Your task to perform on an android device: see tabs open on other devices in the chrome app Image 0: 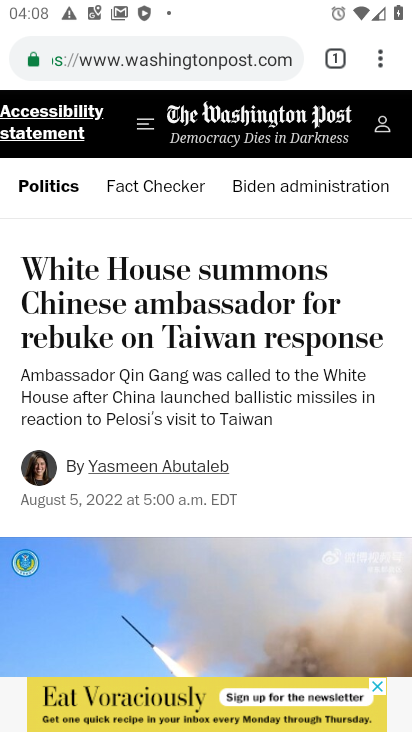
Step 0: press home button
Your task to perform on an android device: see tabs open on other devices in the chrome app Image 1: 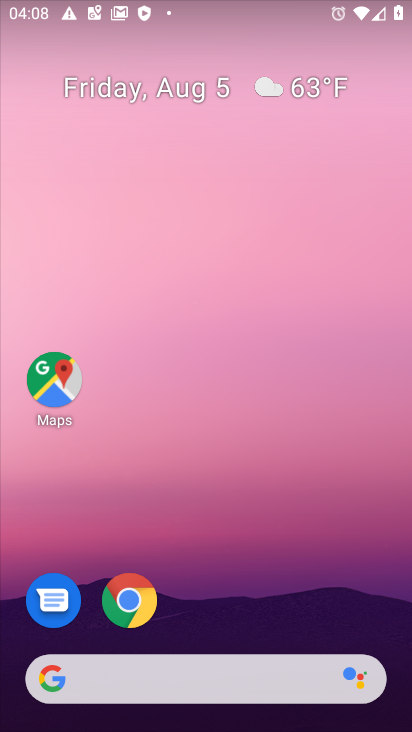
Step 1: click (129, 602)
Your task to perform on an android device: see tabs open on other devices in the chrome app Image 2: 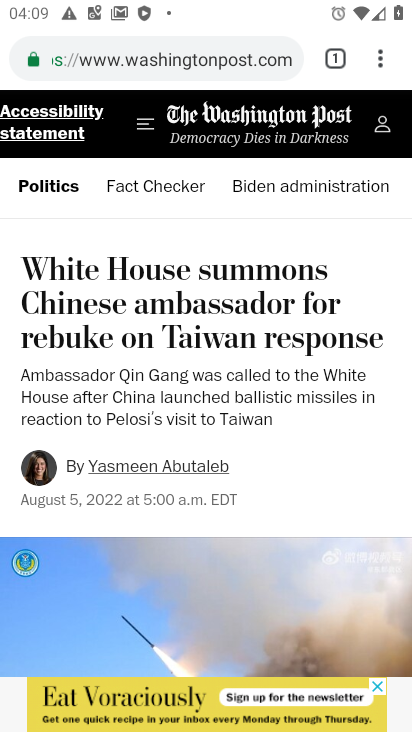
Step 2: click (379, 58)
Your task to perform on an android device: see tabs open on other devices in the chrome app Image 3: 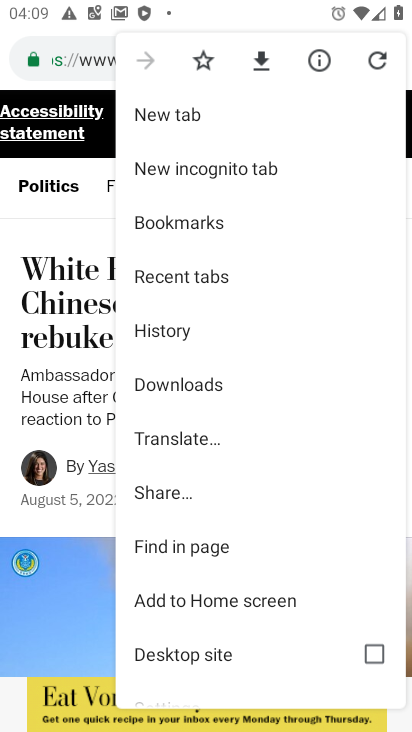
Step 3: click (209, 273)
Your task to perform on an android device: see tabs open on other devices in the chrome app Image 4: 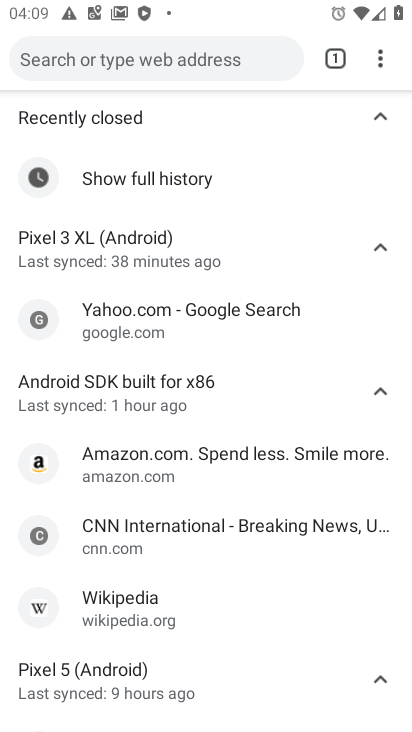
Step 4: task complete